Your task to perform on an android device: create a new album in the google photos Image 0: 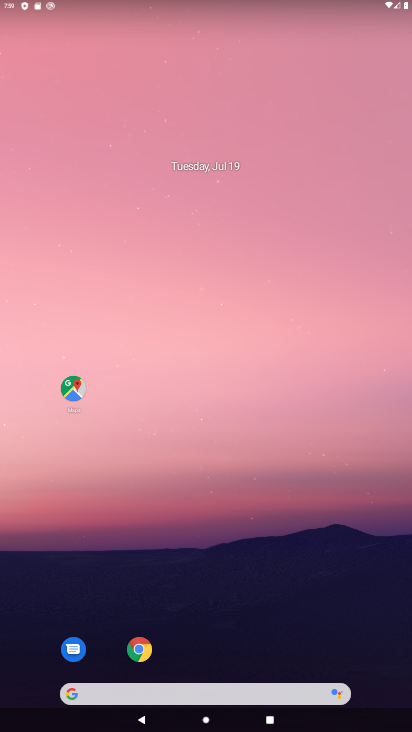
Step 0: drag from (239, 666) to (230, 200)
Your task to perform on an android device: create a new album in the google photos Image 1: 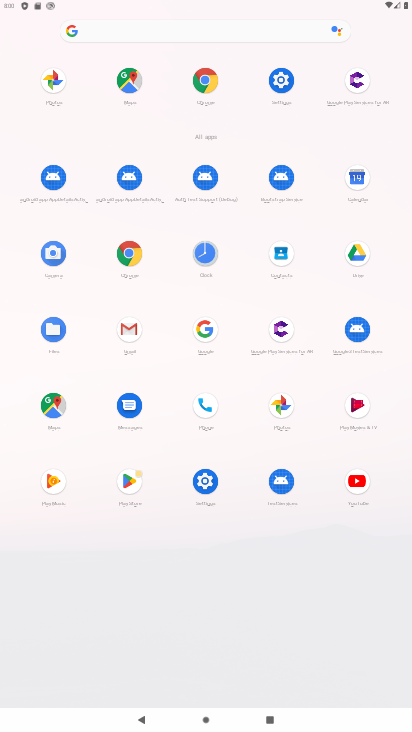
Step 1: click (281, 400)
Your task to perform on an android device: create a new album in the google photos Image 2: 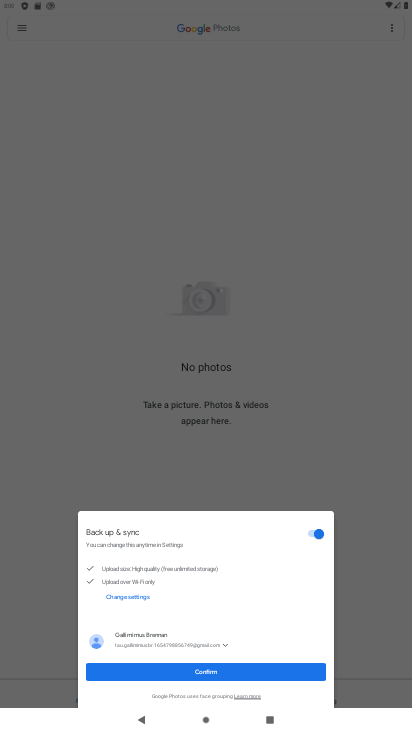
Step 2: click (212, 668)
Your task to perform on an android device: create a new album in the google photos Image 3: 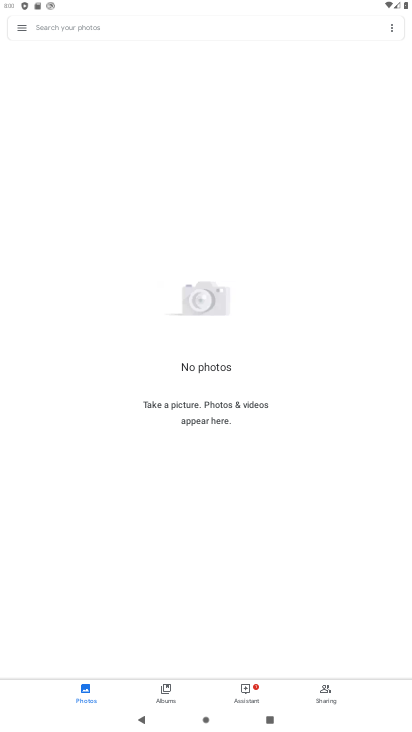
Step 3: click (164, 691)
Your task to perform on an android device: create a new album in the google photos Image 4: 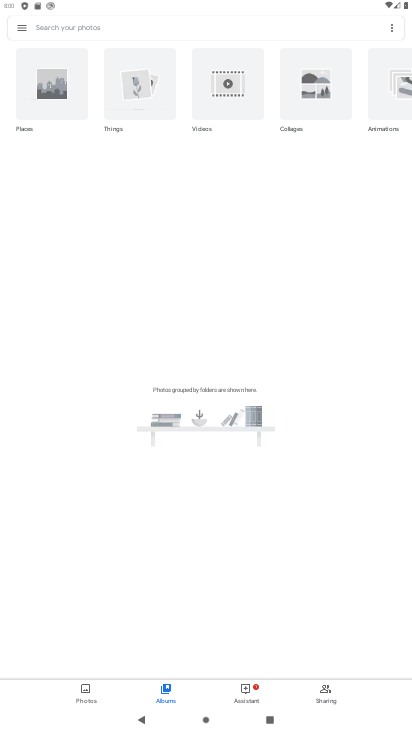
Step 4: click (390, 24)
Your task to perform on an android device: create a new album in the google photos Image 5: 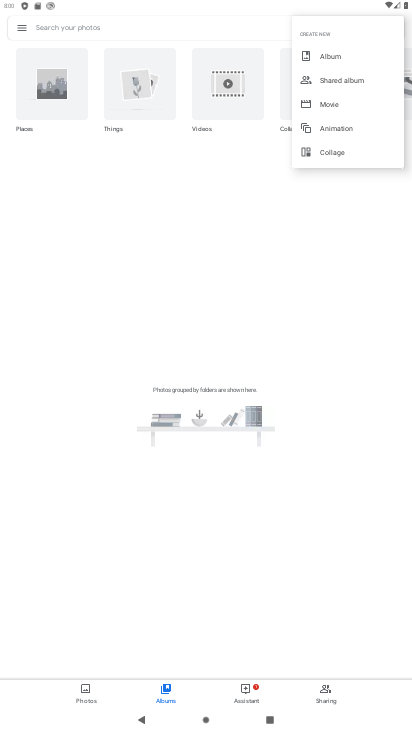
Step 5: click (336, 57)
Your task to perform on an android device: create a new album in the google photos Image 6: 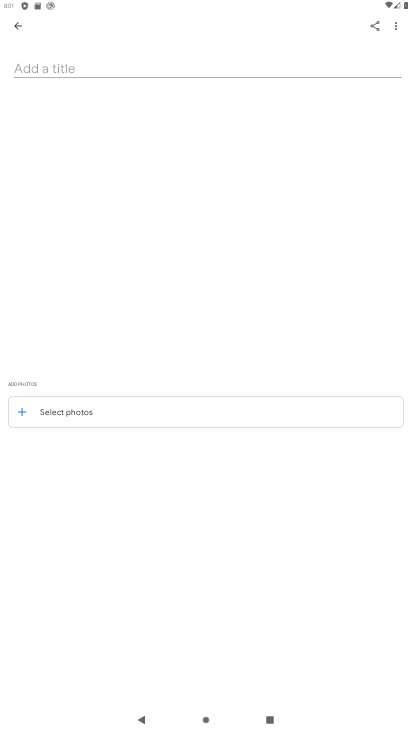
Step 6: click (30, 407)
Your task to perform on an android device: create a new album in the google photos Image 7: 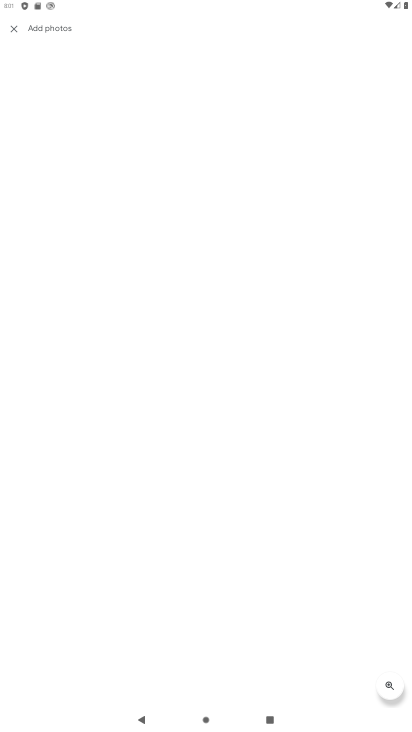
Step 7: task complete